Your task to perform on an android device: check the backup settings in the google photos Image 0: 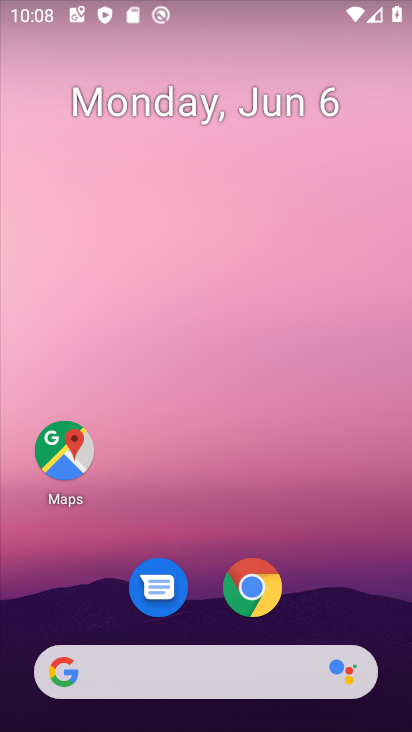
Step 0: drag from (101, 719) to (401, 31)
Your task to perform on an android device: check the backup settings in the google photos Image 1: 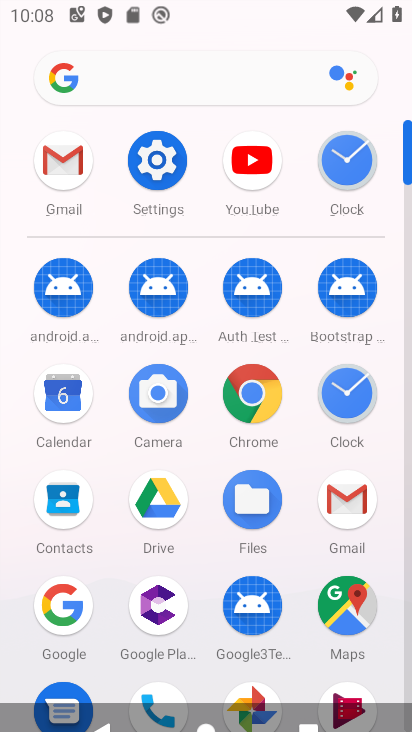
Step 1: drag from (240, 525) to (358, 58)
Your task to perform on an android device: check the backup settings in the google photos Image 2: 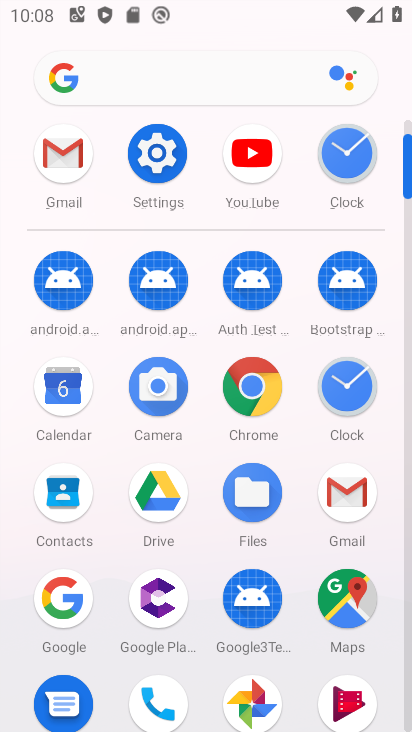
Step 2: click (250, 696)
Your task to perform on an android device: check the backup settings in the google photos Image 3: 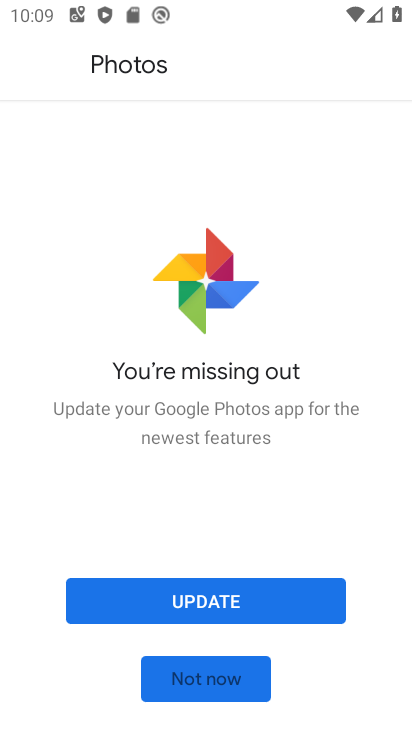
Step 3: click (129, 616)
Your task to perform on an android device: check the backup settings in the google photos Image 4: 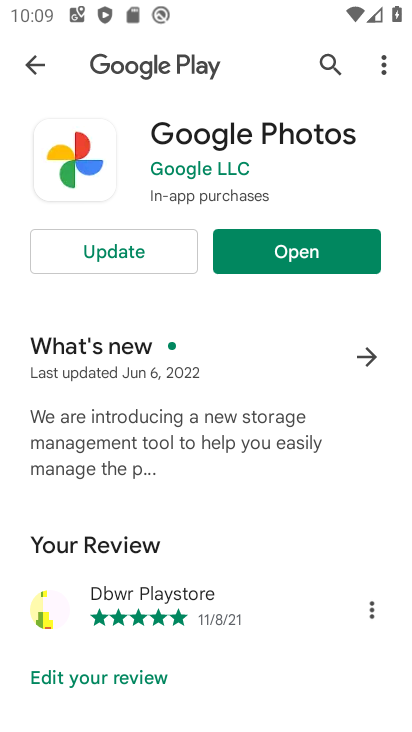
Step 4: click (120, 253)
Your task to perform on an android device: check the backup settings in the google photos Image 5: 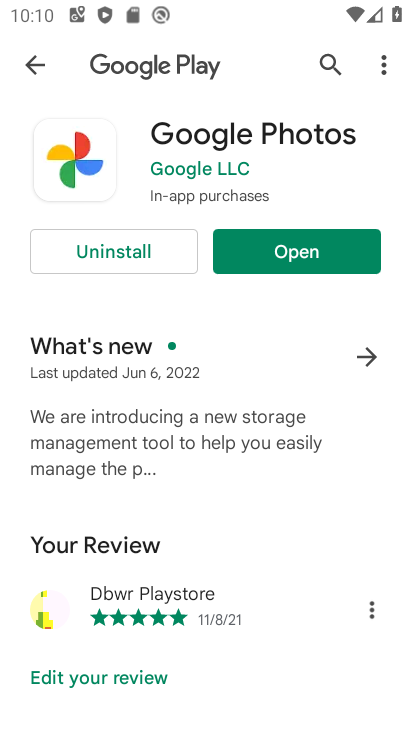
Step 5: click (349, 250)
Your task to perform on an android device: check the backup settings in the google photos Image 6: 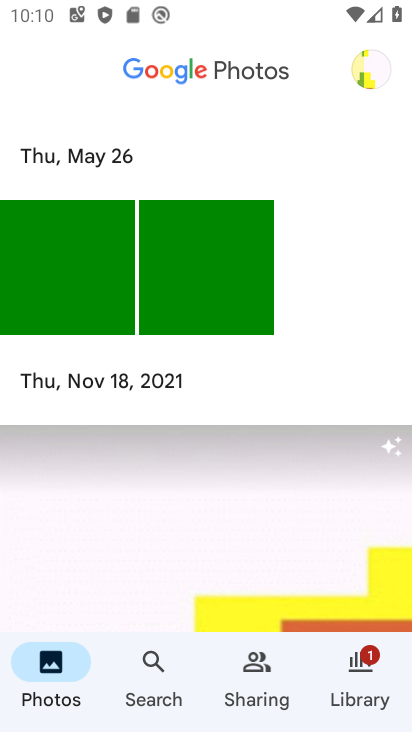
Step 6: click (371, 61)
Your task to perform on an android device: check the backup settings in the google photos Image 7: 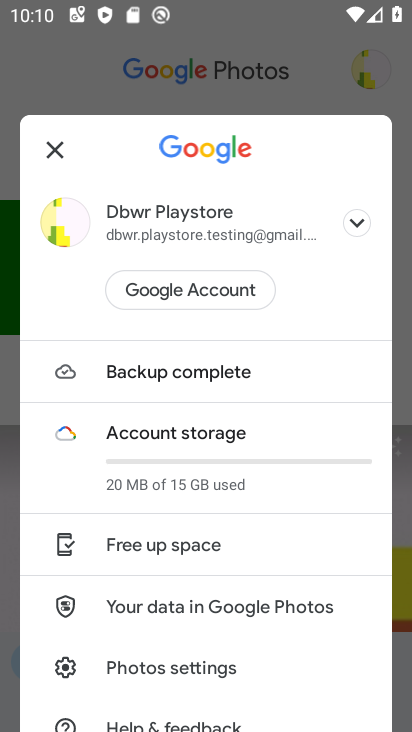
Step 7: click (186, 669)
Your task to perform on an android device: check the backup settings in the google photos Image 8: 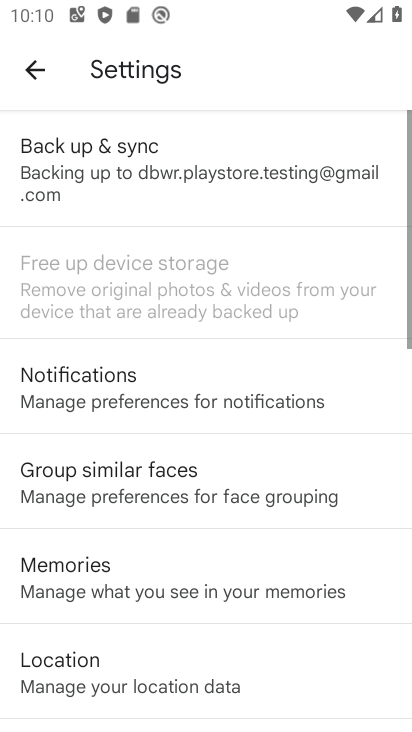
Step 8: click (237, 179)
Your task to perform on an android device: check the backup settings in the google photos Image 9: 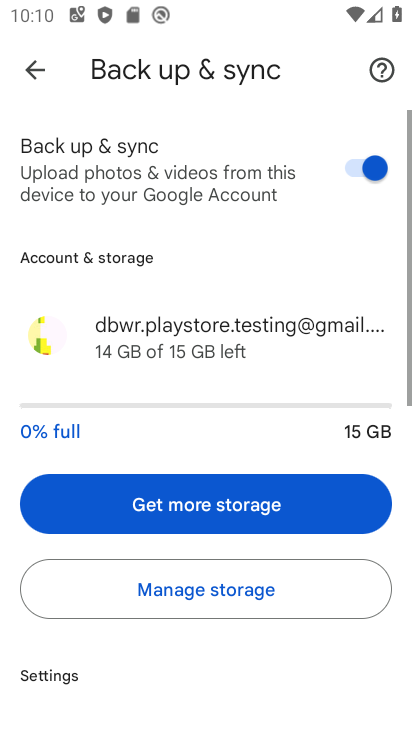
Step 9: task complete